Your task to perform on an android device: Is it going to rain tomorrow? Image 0: 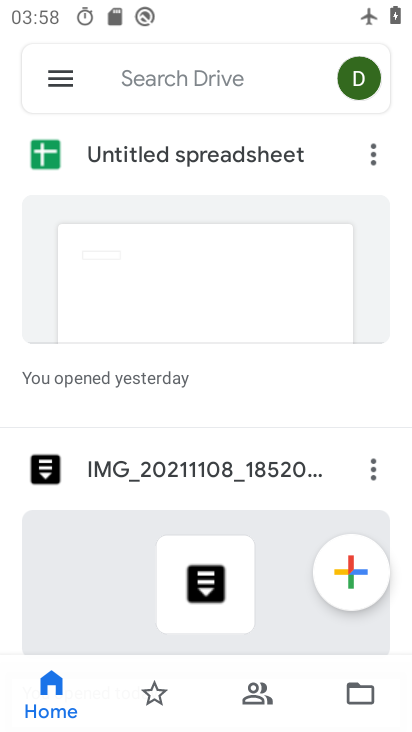
Step 0: press home button
Your task to perform on an android device: Is it going to rain tomorrow? Image 1: 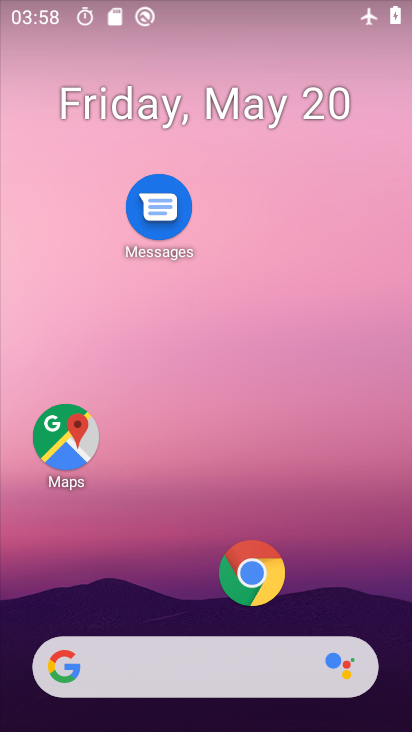
Step 1: drag from (183, 605) to (217, 183)
Your task to perform on an android device: Is it going to rain tomorrow? Image 2: 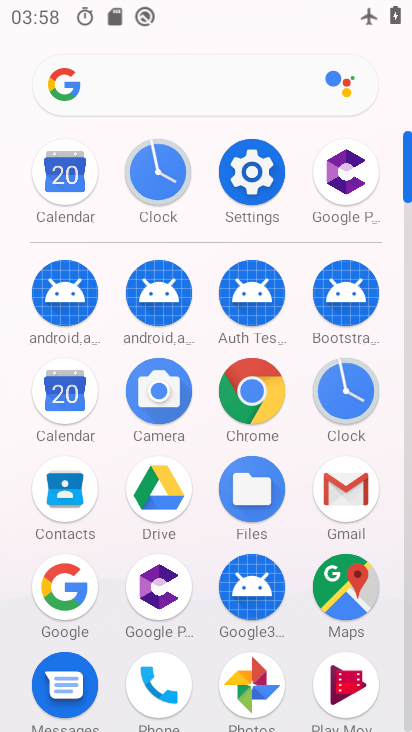
Step 2: click (70, 608)
Your task to perform on an android device: Is it going to rain tomorrow? Image 3: 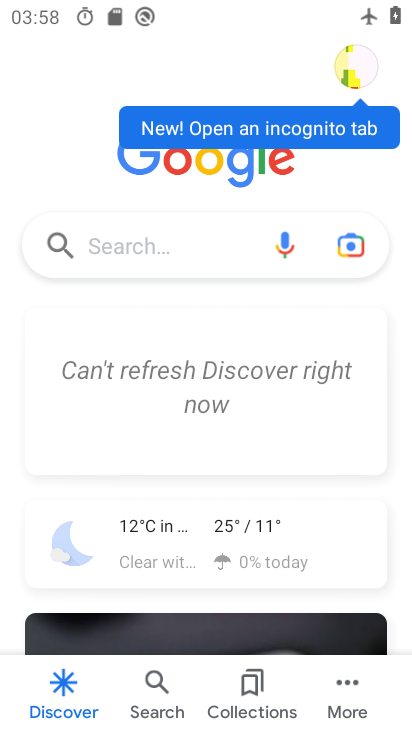
Step 3: click (162, 235)
Your task to perform on an android device: Is it going to rain tomorrow? Image 4: 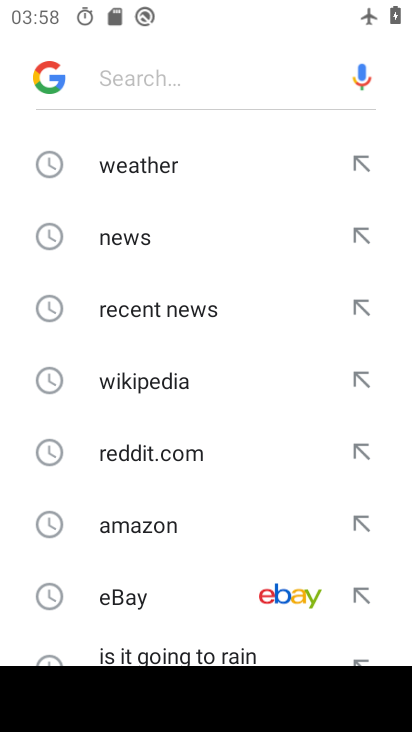
Step 4: click (135, 167)
Your task to perform on an android device: Is it going to rain tomorrow? Image 5: 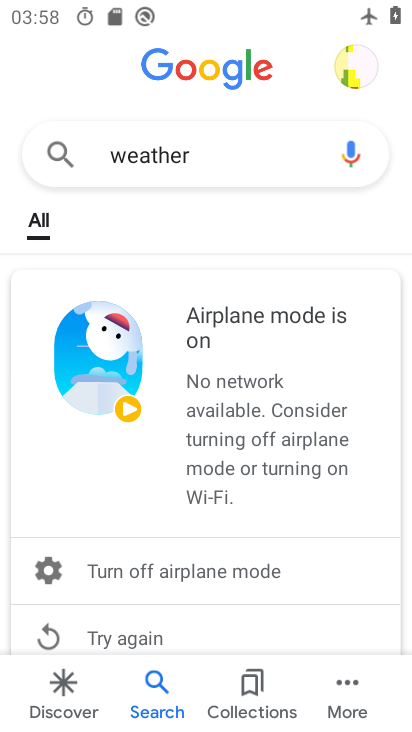
Step 5: task complete